Your task to perform on an android device: Go to network settings Image 0: 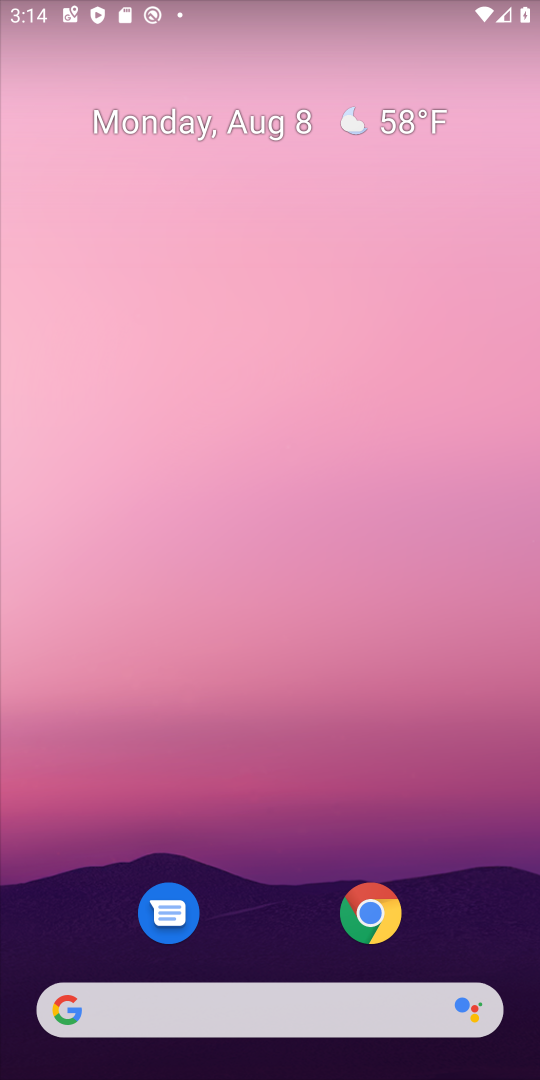
Step 0: press home button
Your task to perform on an android device: Go to network settings Image 1: 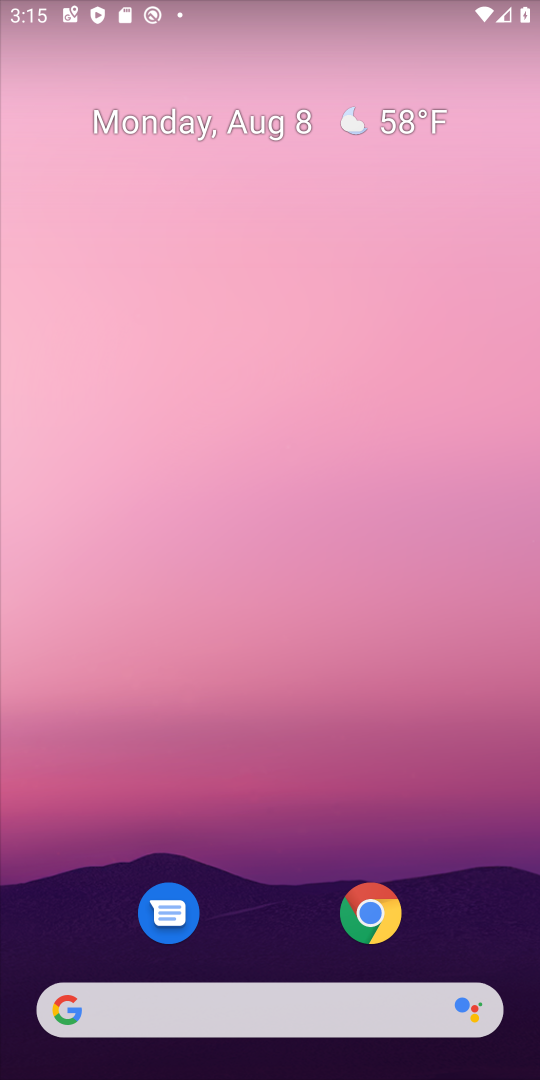
Step 1: drag from (297, 922) to (331, 252)
Your task to perform on an android device: Go to network settings Image 2: 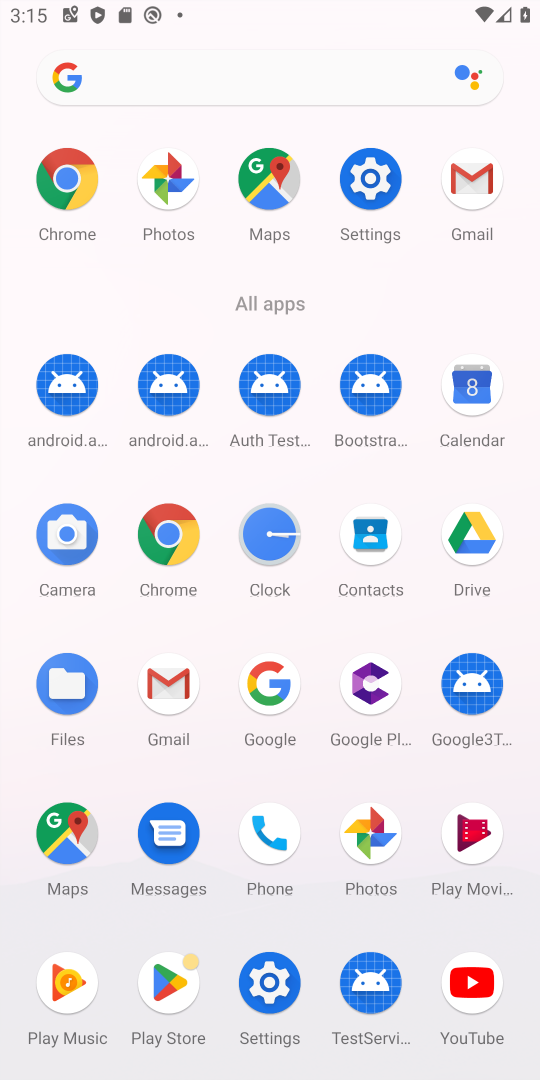
Step 2: click (379, 186)
Your task to perform on an android device: Go to network settings Image 3: 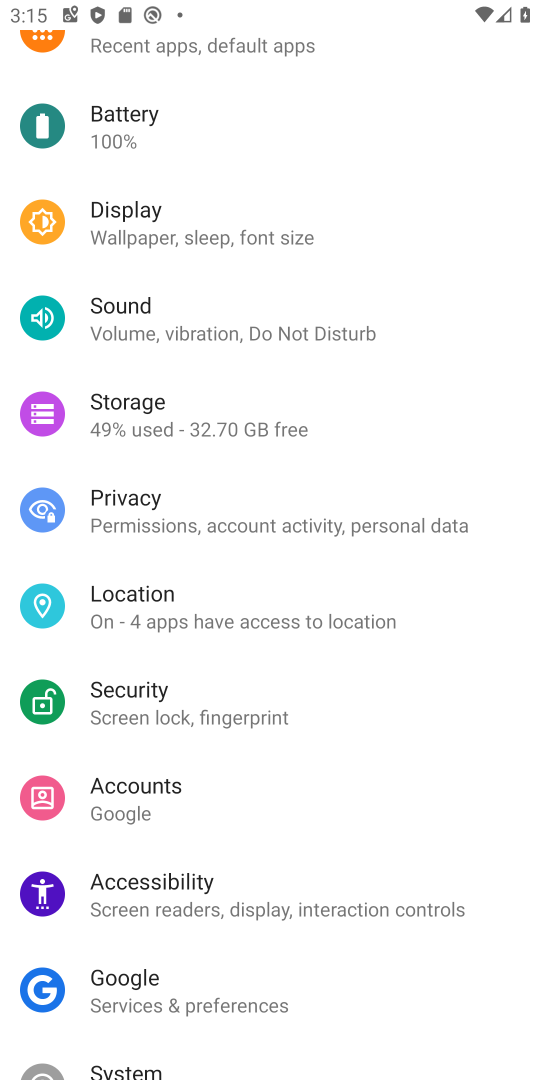
Step 3: drag from (496, 293) to (491, 451)
Your task to perform on an android device: Go to network settings Image 4: 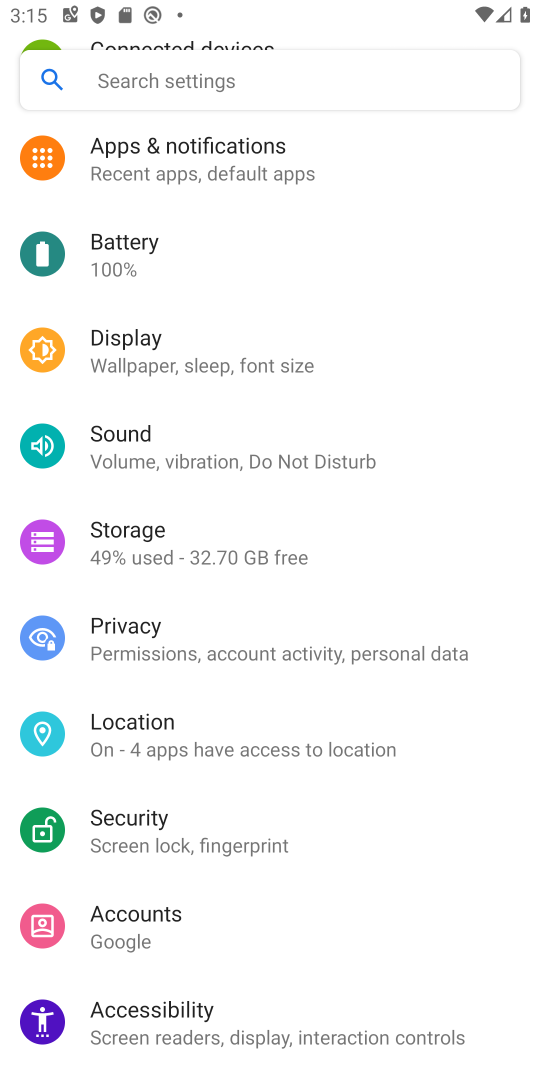
Step 4: drag from (466, 252) to (464, 424)
Your task to perform on an android device: Go to network settings Image 5: 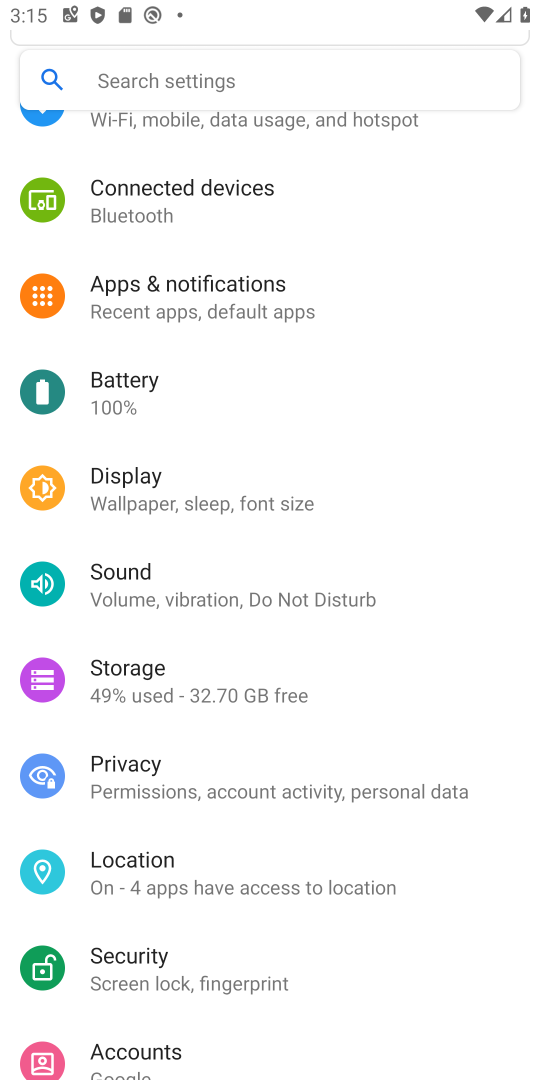
Step 5: drag from (470, 286) to (471, 429)
Your task to perform on an android device: Go to network settings Image 6: 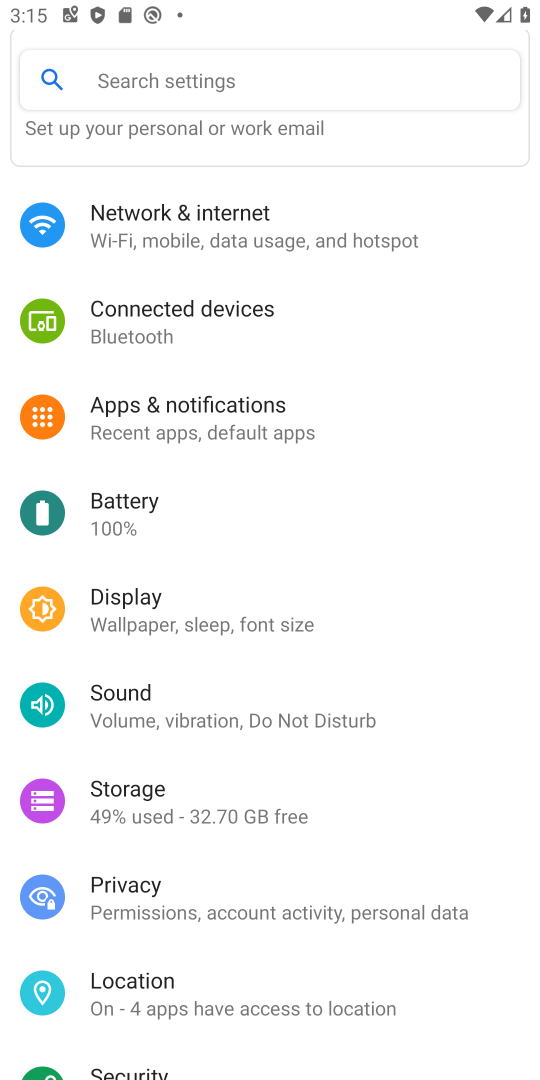
Step 6: drag from (448, 281) to (459, 588)
Your task to perform on an android device: Go to network settings Image 7: 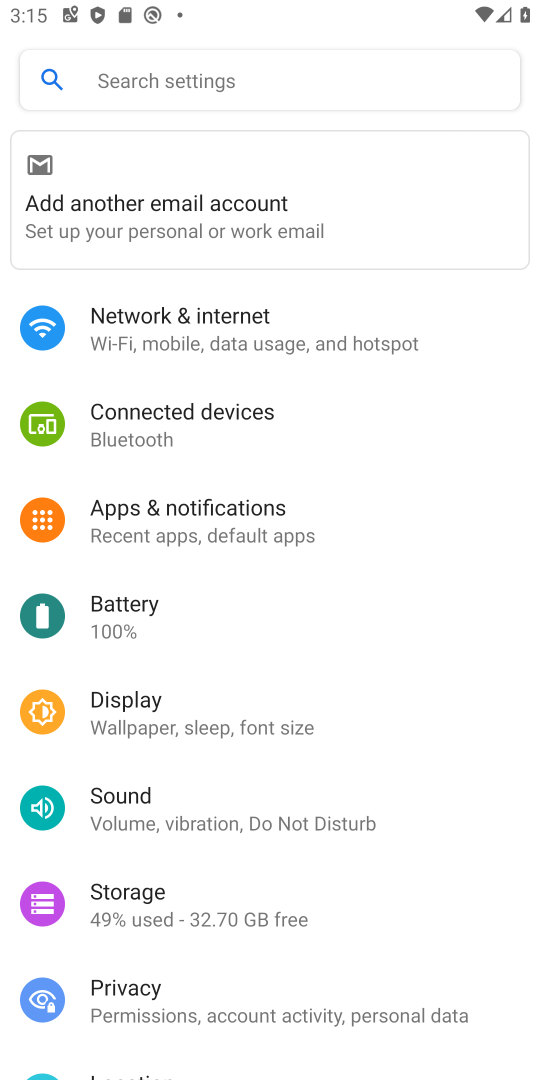
Step 7: click (374, 310)
Your task to perform on an android device: Go to network settings Image 8: 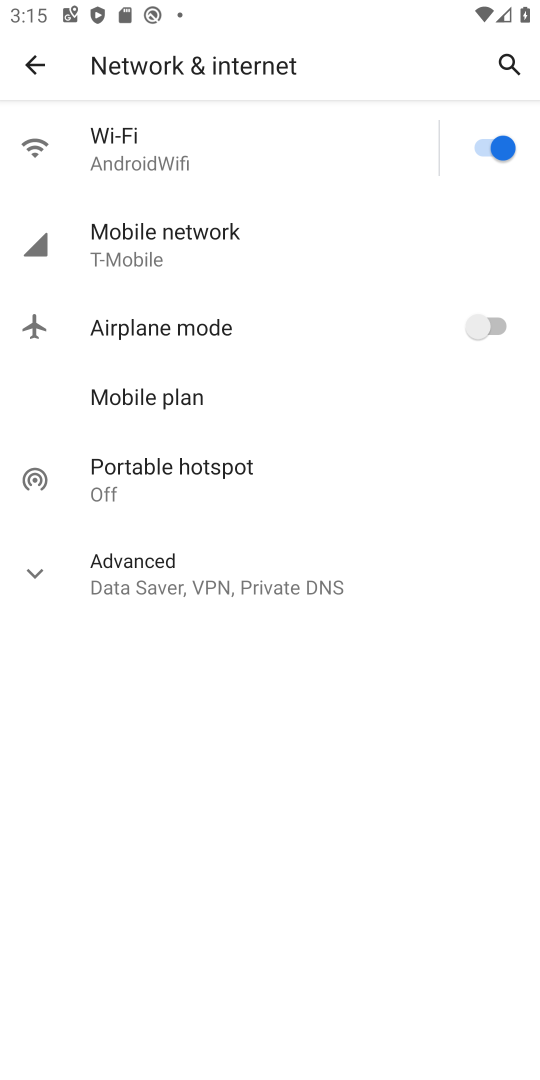
Step 8: task complete